Your task to perform on an android device: delete the emails in spam in the gmail app Image 0: 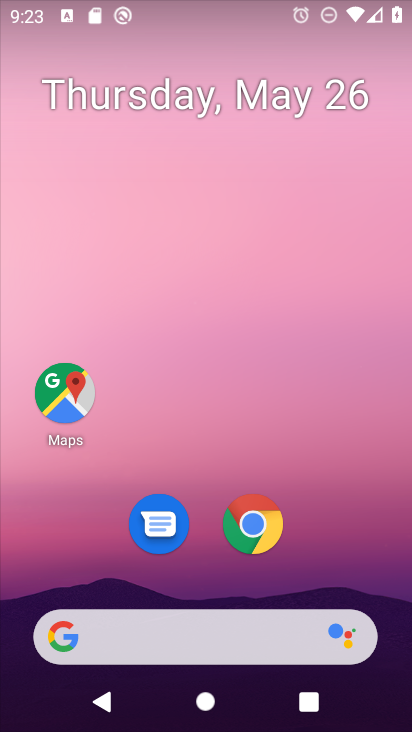
Step 0: drag from (325, 517) to (318, 19)
Your task to perform on an android device: delete the emails in spam in the gmail app Image 1: 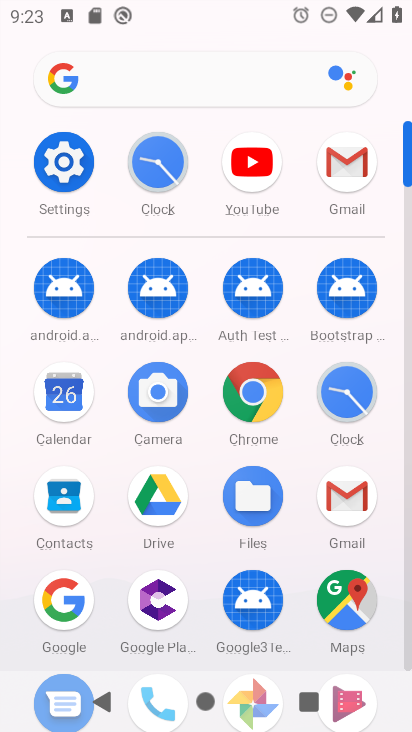
Step 1: click (342, 170)
Your task to perform on an android device: delete the emails in spam in the gmail app Image 2: 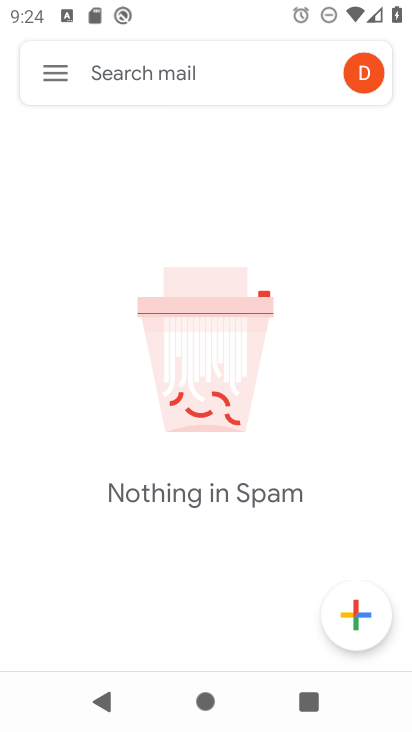
Step 2: task complete